Your task to perform on an android device: star an email in the gmail app Image 0: 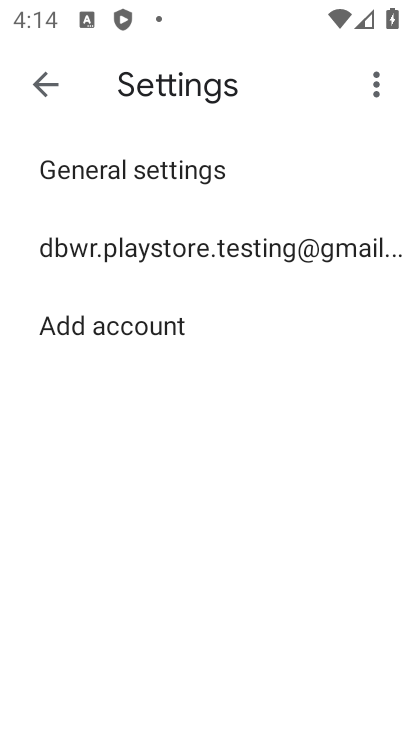
Step 0: press home button
Your task to perform on an android device: star an email in the gmail app Image 1: 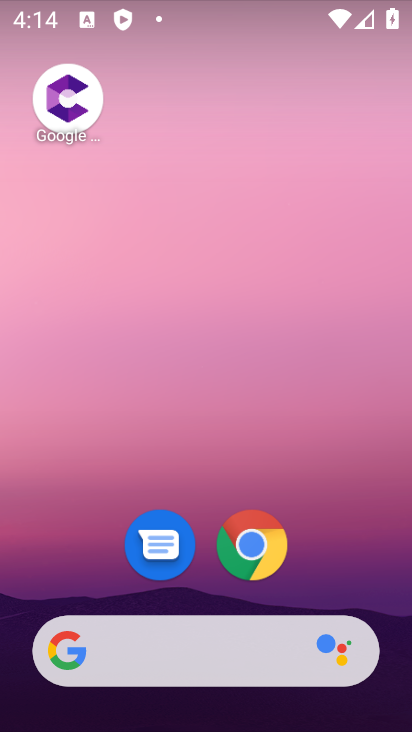
Step 1: drag from (371, 591) to (307, 121)
Your task to perform on an android device: star an email in the gmail app Image 2: 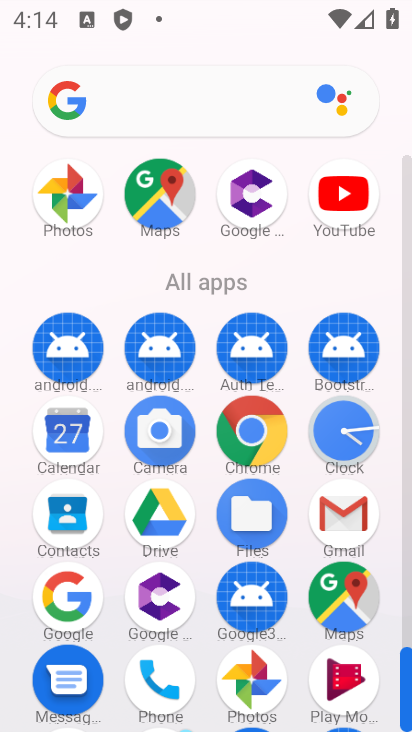
Step 2: click (350, 502)
Your task to perform on an android device: star an email in the gmail app Image 3: 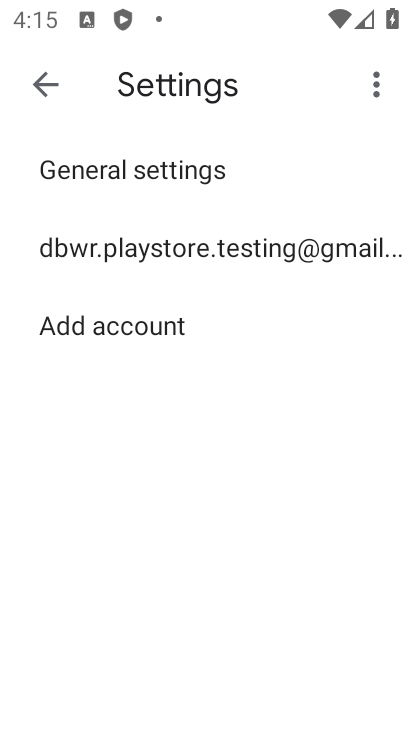
Step 3: click (34, 95)
Your task to perform on an android device: star an email in the gmail app Image 4: 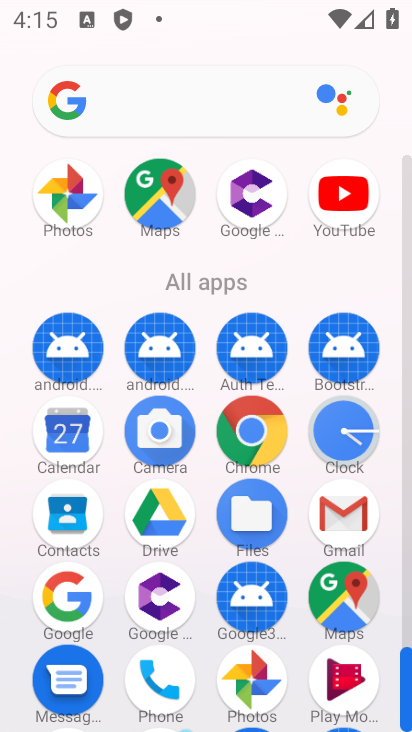
Step 4: click (353, 496)
Your task to perform on an android device: star an email in the gmail app Image 5: 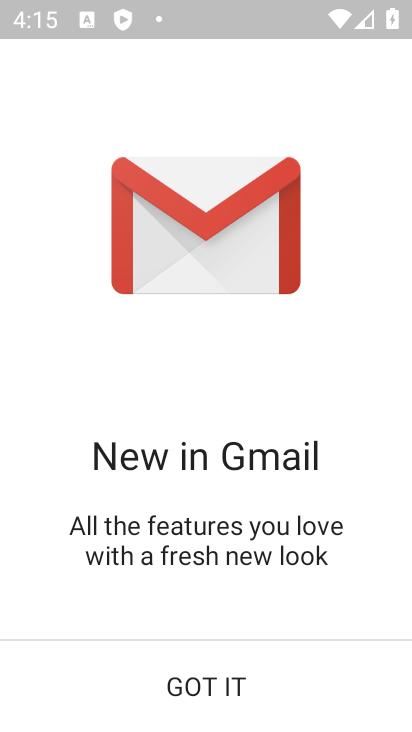
Step 5: click (224, 692)
Your task to perform on an android device: star an email in the gmail app Image 6: 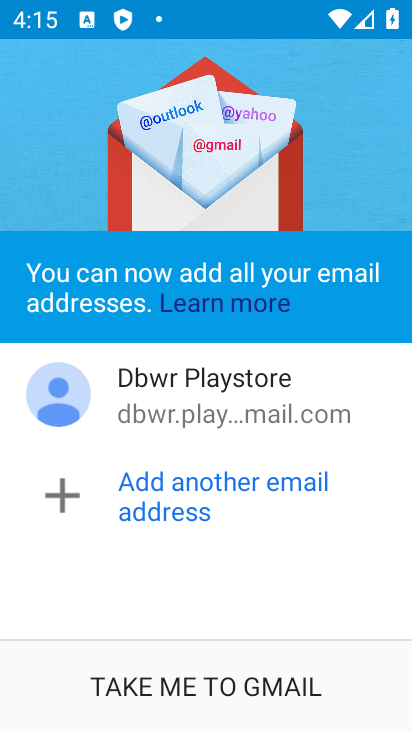
Step 6: click (204, 678)
Your task to perform on an android device: star an email in the gmail app Image 7: 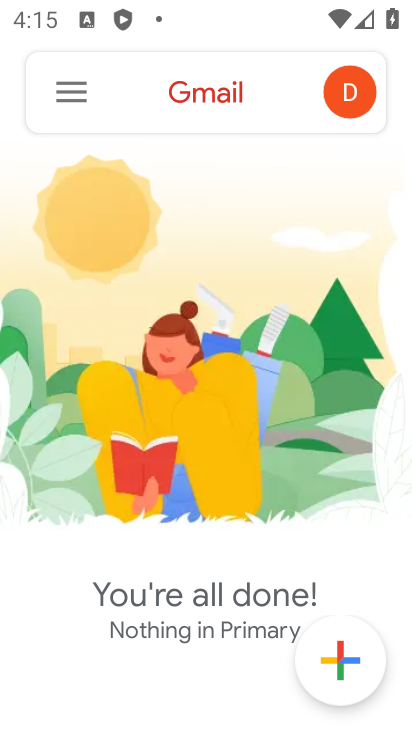
Step 7: click (48, 93)
Your task to perform on an android device: star an email in the gmail app Image 8: 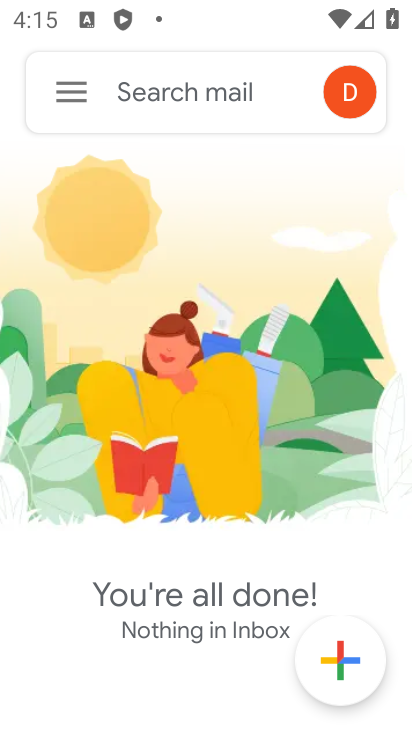
Step 8: click (59, 73)
Your task to perform on an android device: star an email in the gmail app Image 9: 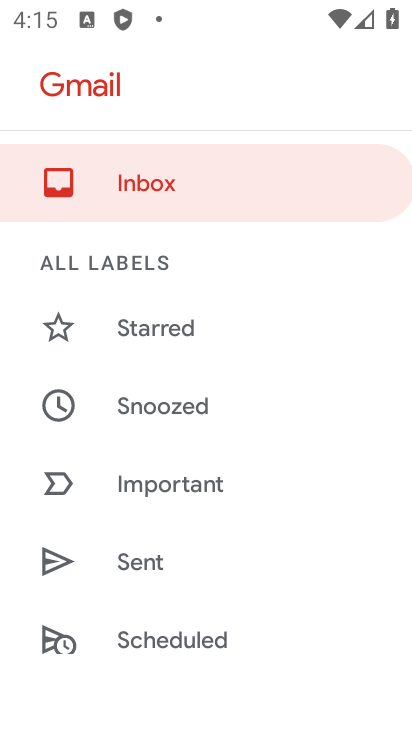
Step 9: drag from (262, 602) to (303, 60)
Your task to perform on an android device: star an email in the gmail app Image 10: 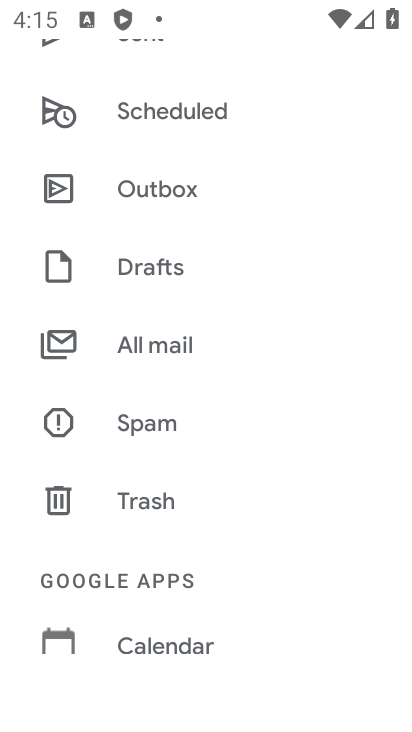
Step 10: drag from (271, 514) to (181, 65)
Your task to perform on an android device: star an email in the gmail app Image 11: 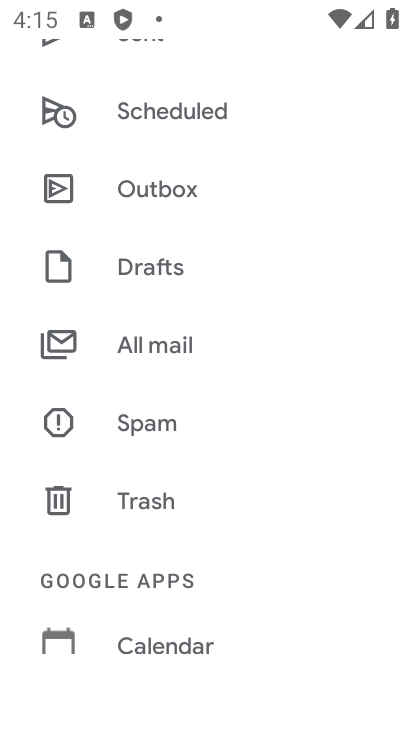
Step 11: drag from (162, 569) to (139, 75)
Your task to perform on an android device: star an email in the gmail app Image 12: 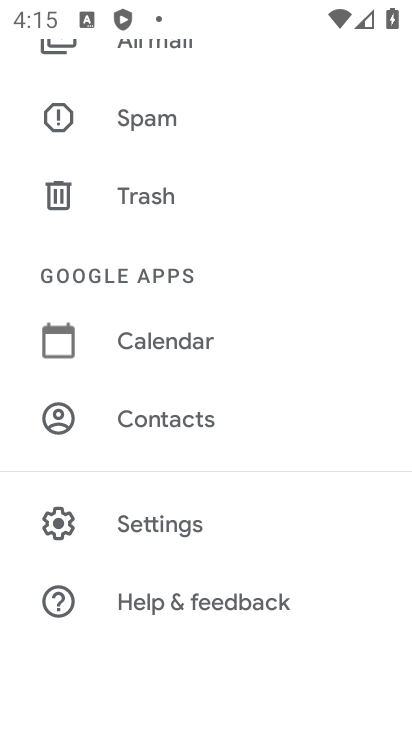
Step 12: click (154, 53)
Your task to perform on an android device: star an email in the gmail app Image 13: 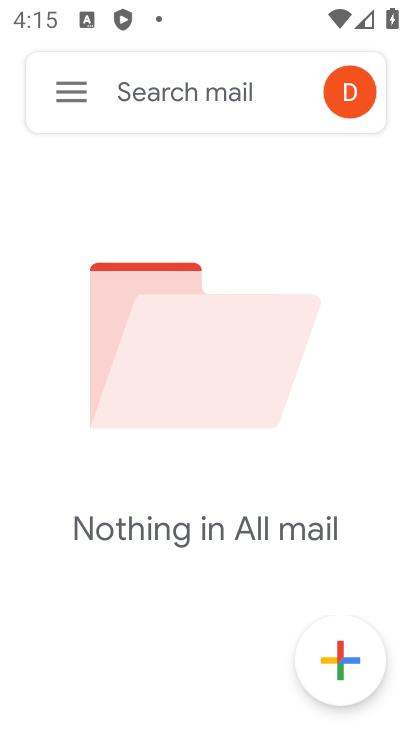
Step 13: task complete